Your task to perform on an android device: add a contact Image 0: 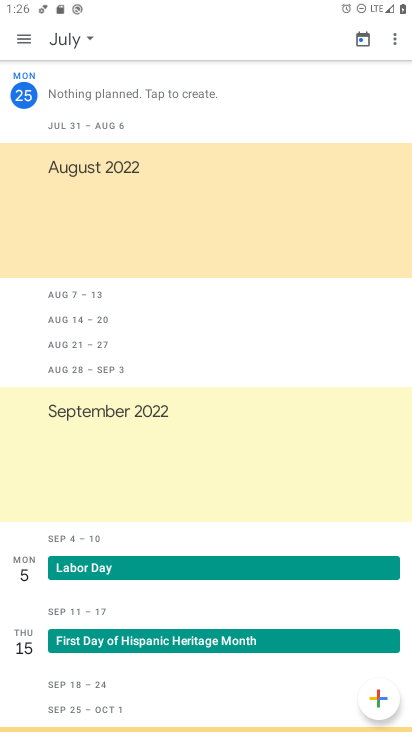
Step 0: press home button
Your task to perform on an android device: add a contact Image 1: 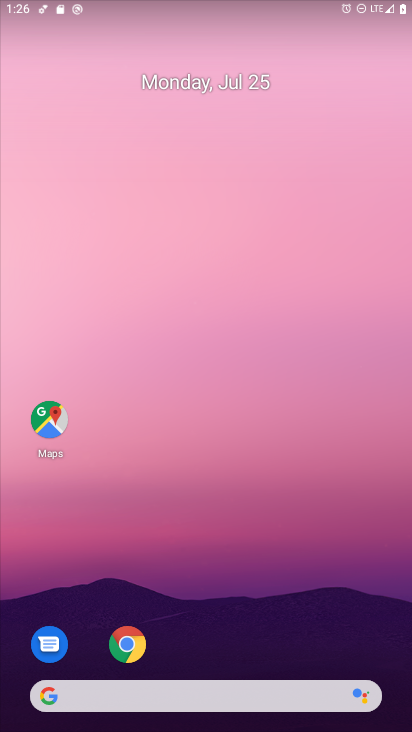
Step 1: drag from (270, 606) to (270, 23)
Your task to perform on an android device: add a contact Image 2: 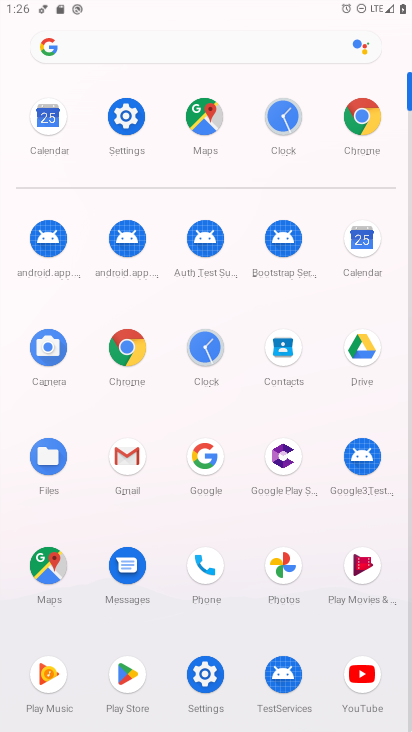
Step 2: click (283, 345)
Your task to perform on an android device: add a contact Image 3: 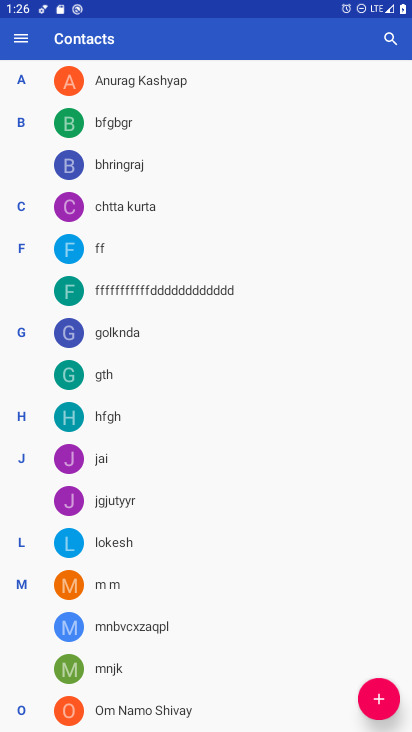
Step 3: click (375, 700)
Your task to perform on an android device: add a contact Image 4: 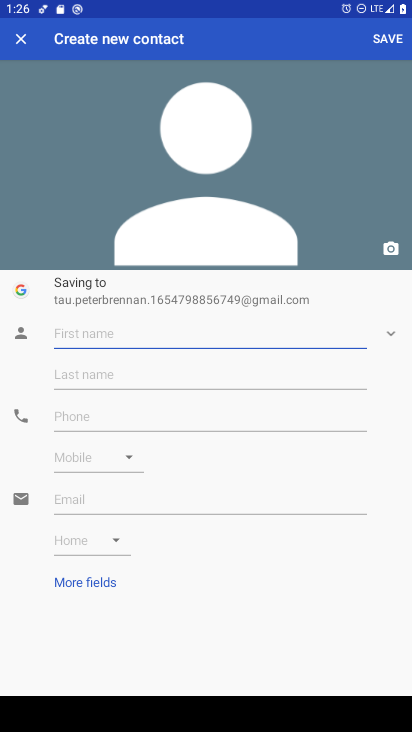
Step 4: type "bhjnmkl"
Your task to perform on an android device: add a contact Image 5: 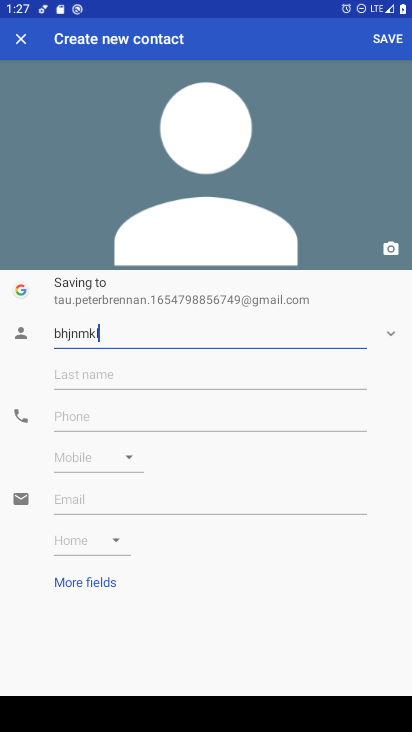
Step 5: click (67, 412)
Your task to perform on an android device: add a contact Image 6: 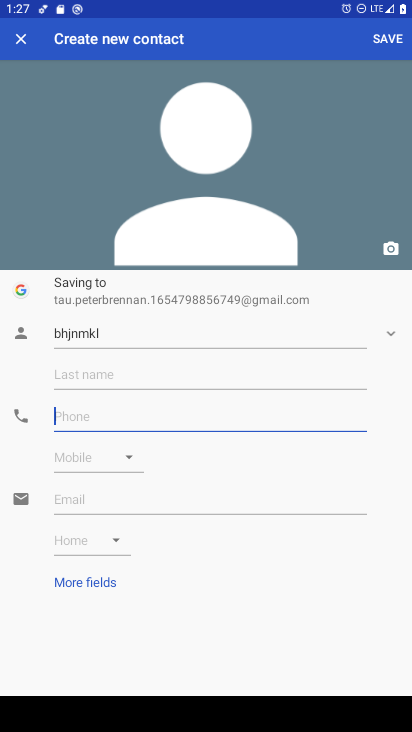
Step 6: type "8907654321"
Your task to perform on an android device: add a contact Image 7: 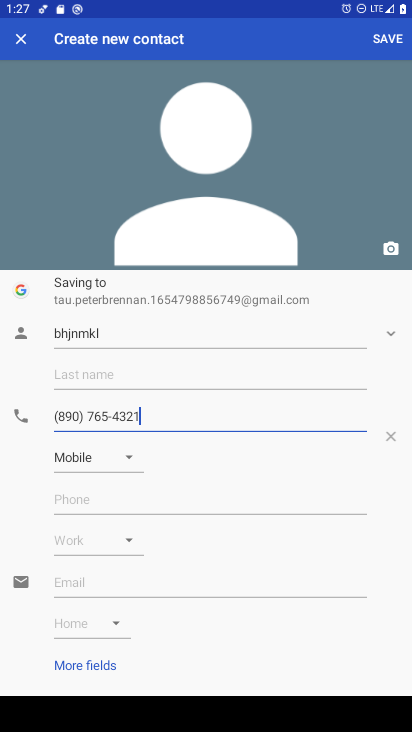
Step 7: click (386, 35)
Your task to perform on an android device: add a contact Image 8: 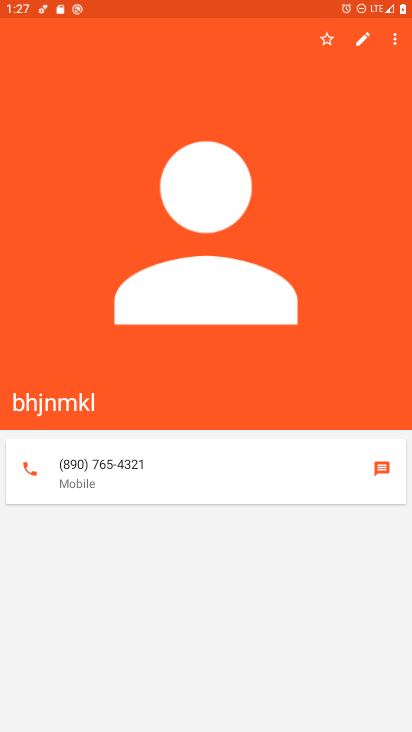
Step 8: task complete